Your task to perform on an android device: Check the settings for the Amazon Prime Video app Image 0: 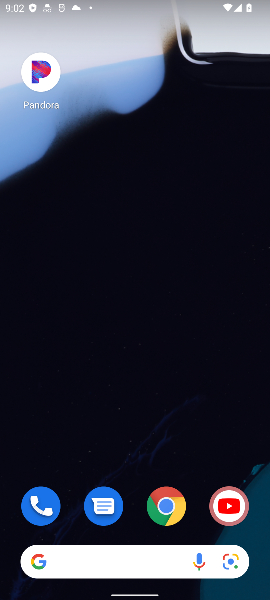
Step 0: drag from (161, 529) to (226, 118)
Your task to perform on an android device: Check the settings for the Amazon Prime Video app Image 1: 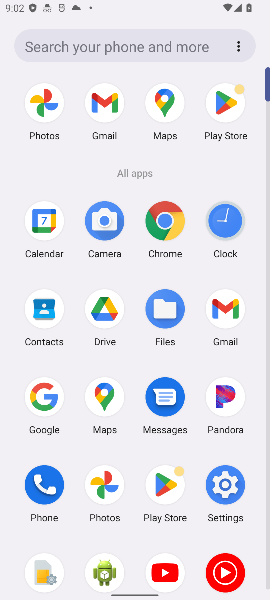
Step 1: task complete